Your task to perform on an android device: Open Google Maps and go to "Timeline" Image 0: 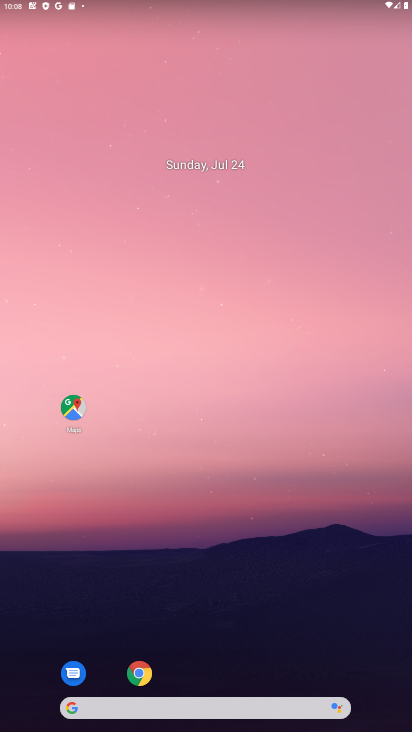
Step 0: click (79, 404)
Your task to perform on an android device: Open Google Maps and go to "Timeline" Image 1: 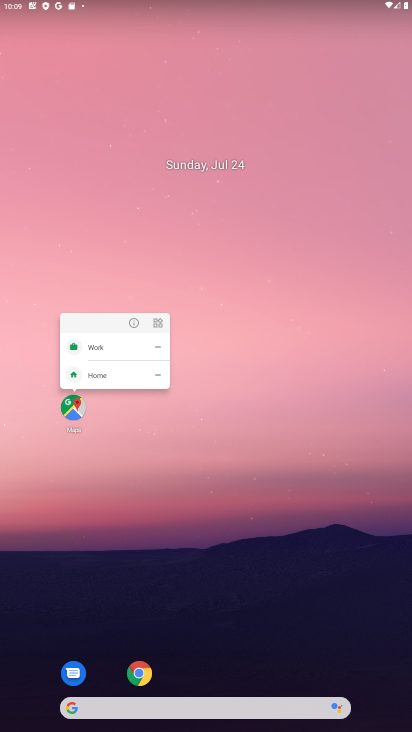
Step 1: click (70, 416)
Your task to perform on an android device: Open Google Maps and go to "Timeline" Image 2: 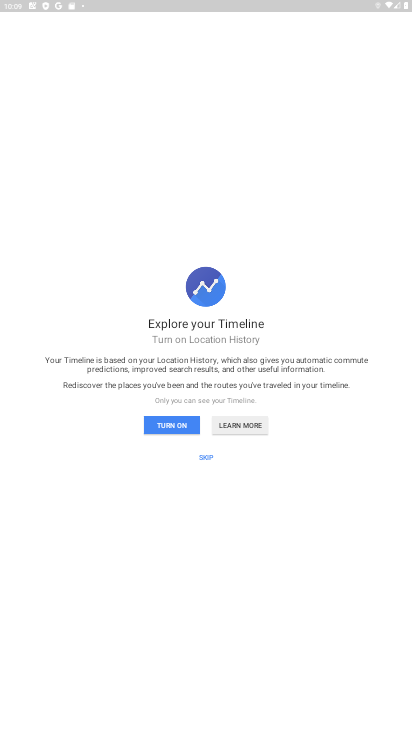
Step 2: click (210, 457)
Your task to perform on an android device: Open Google Maps and go to "Timeline" Image 3: 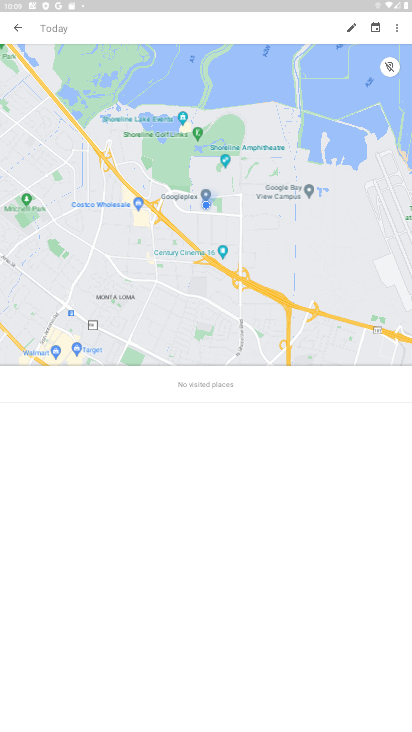
Step 3: click (11, 20)
Your task to perform on an android device: Open Google Maps and go to "Timeline" Image 4: 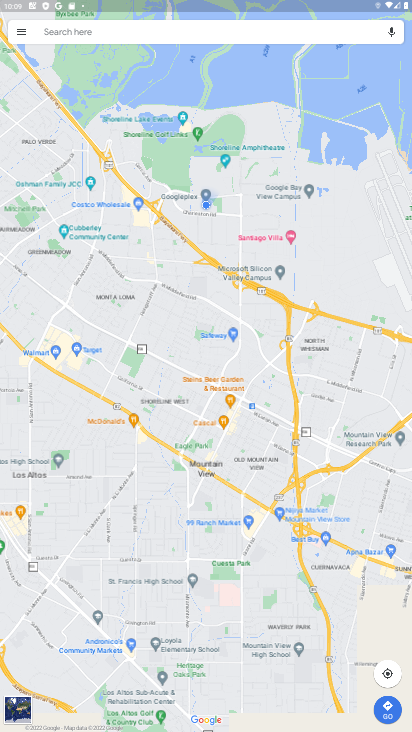
Step 4: click (16, 29)
Your task to perform on an android device: Open Google Maps and go to "Timeline" Image 5: 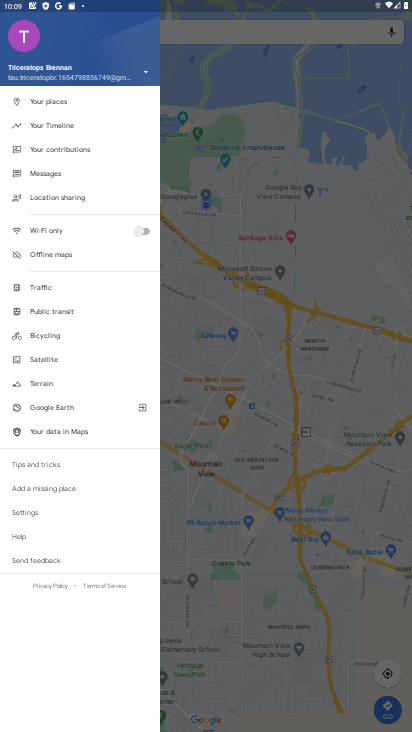
Step 5: click (68, 127)
Your task to perform on an android device: Open Google Maps and go to "Timeline" Image 6: 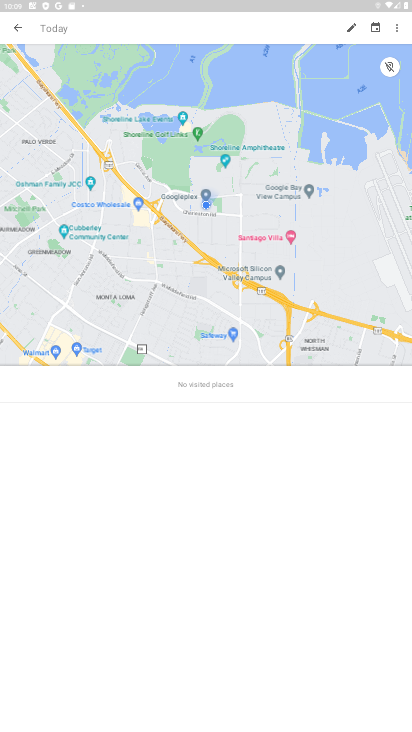
Step 6: task complete